Your task to perform on an android device: Open calendar and show me the second week of next month Image 0: 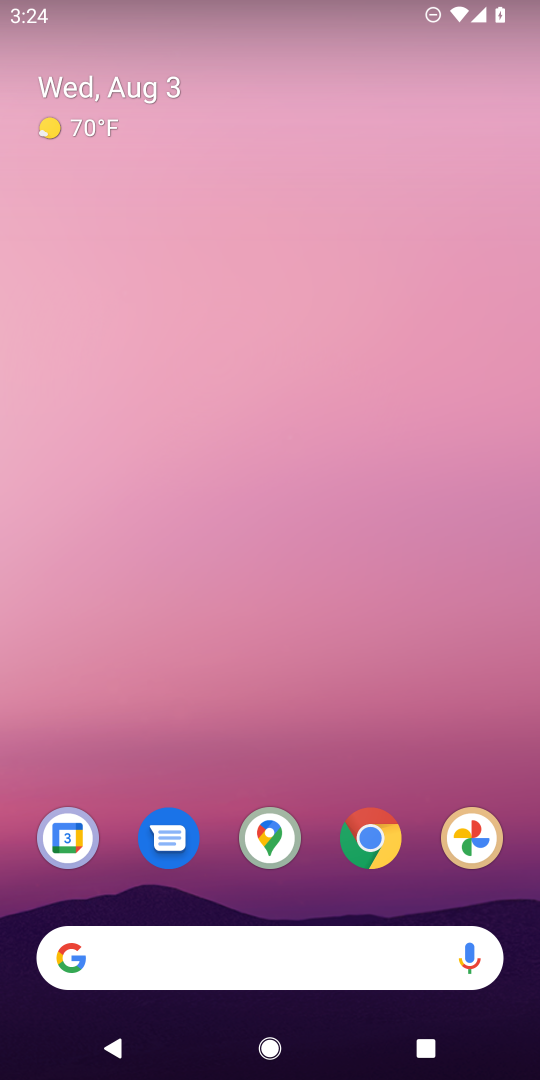
Step 0: click (47, 848)
Your task to perform on an android device: Open calendar and show me the second week of next month Image 1: 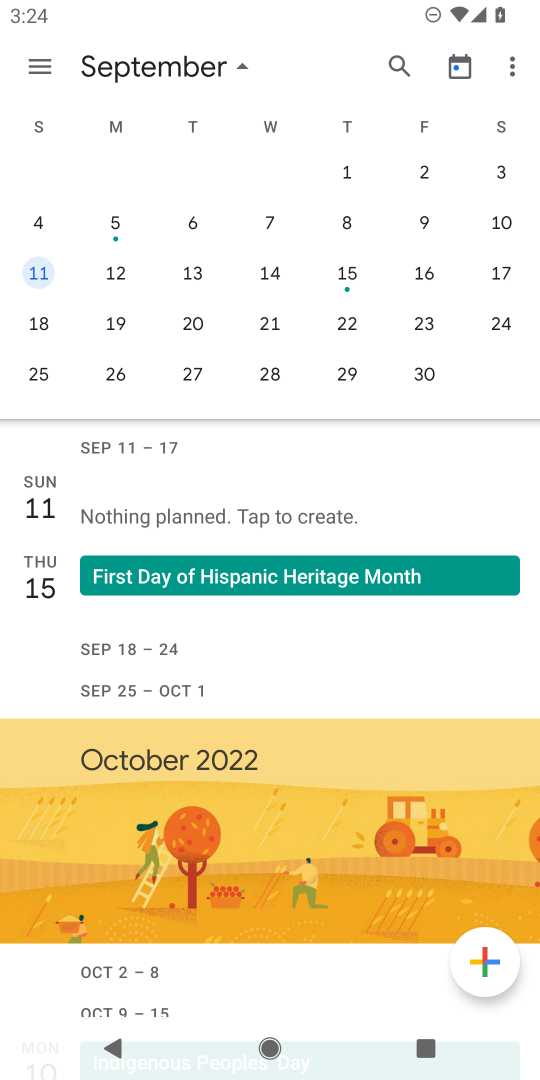
Step 1: click (42, 209)
Your task to perform on an android device: Open calendar and show me the second week of next month Image 2: 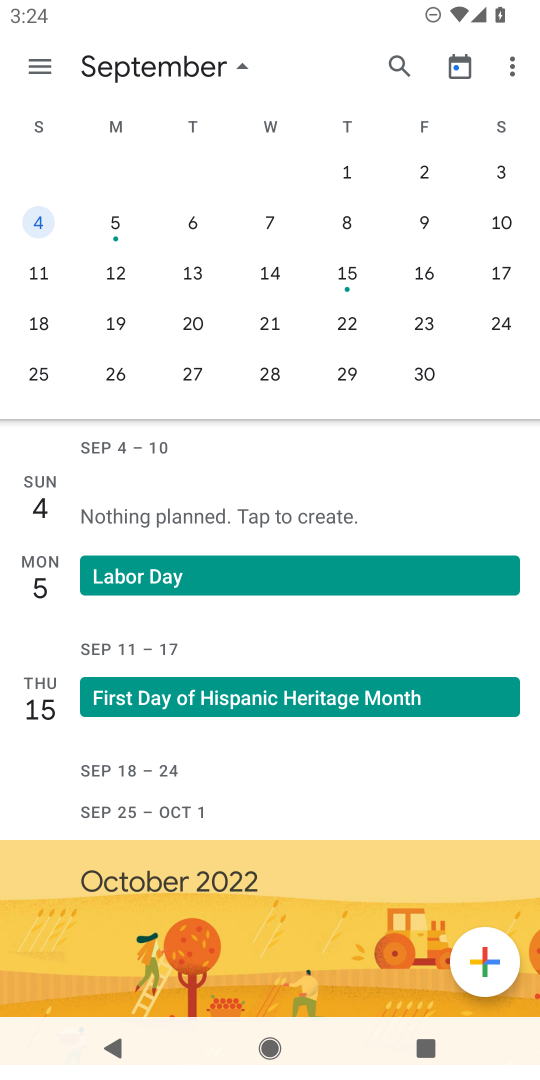
Step 2: task complete